Your task to perform on an android device: Open the calendar and show me this week's events? Image 0: 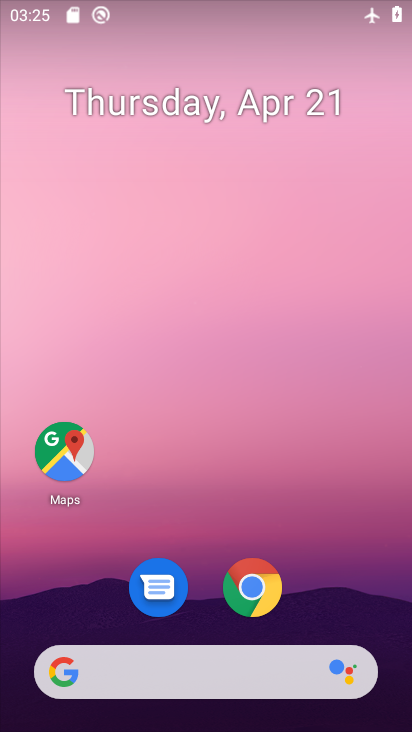
Step 0: drag from (346, 603) to (359, 225)
Your task to perform on an android device: Open the calendar and show me this week's events? Image 1: 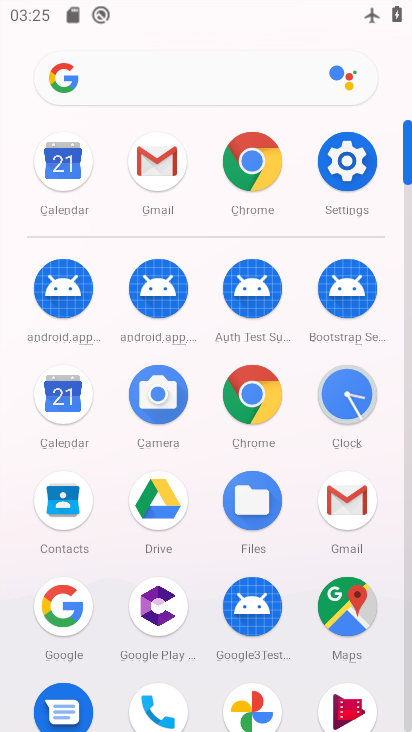
Step 1: click (51, 411)
Your task to perform on an android device: Open the calendar and show me this week's events? Image 2: 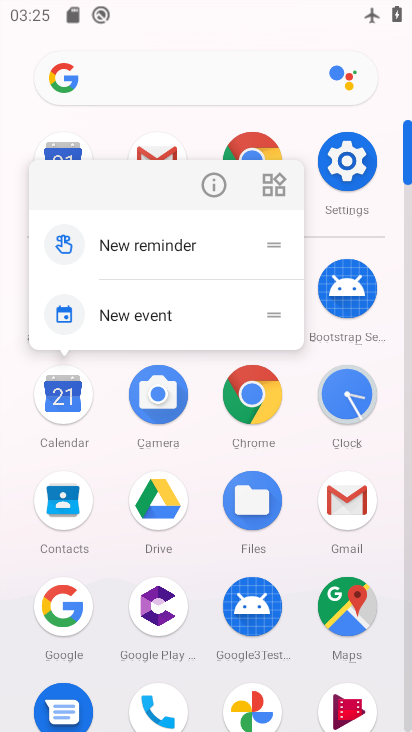
Step 2: click (55, 413)
Your task to perform on an android device: Open the calendar and show me this week's events? Image 3: 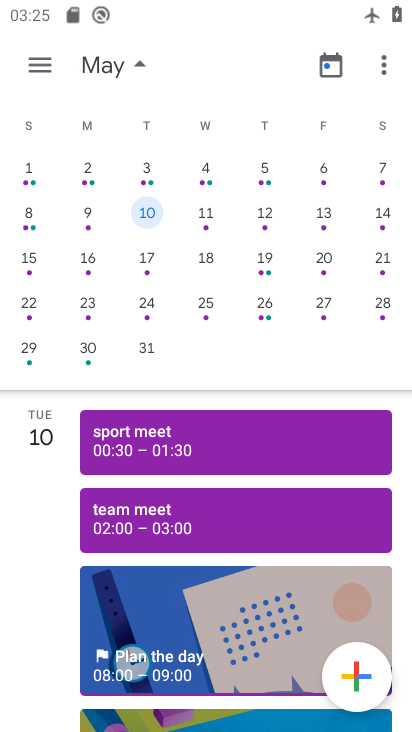
Step 3: click (20, 236)
Your task to perform on an android device: Open the calendar and show me this week's events? Image 4: 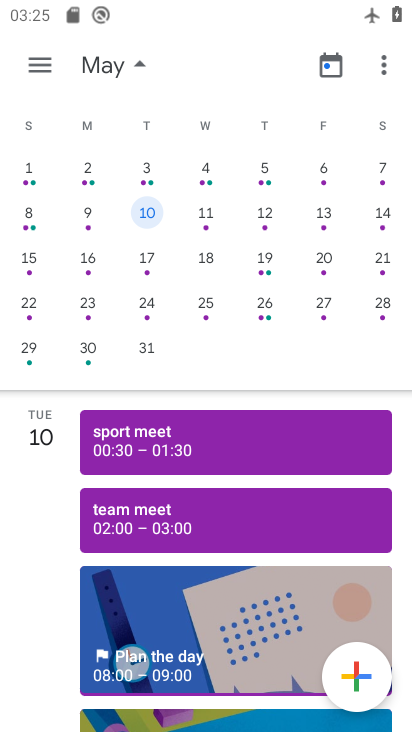
Step 4: drag from (236, 230) to (410, 271)
Your task to perform on an android device: Open the calendar and show me this week's events? Image 5: 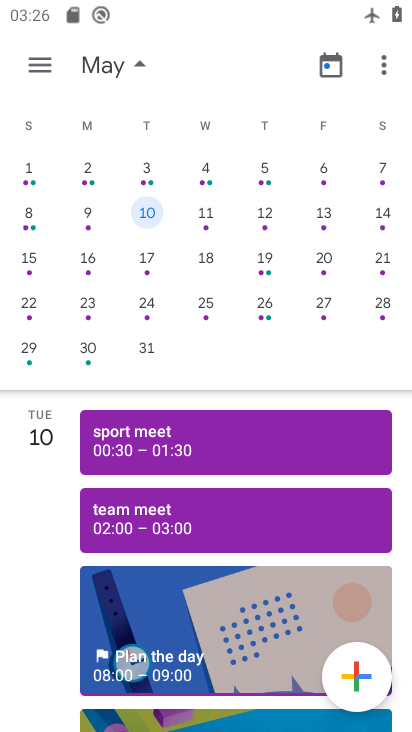
Step 5: drag from (130, 241) to (366, 242)
Your task to perform on an android device: Open the calendar and show me this week's events? Image 6: 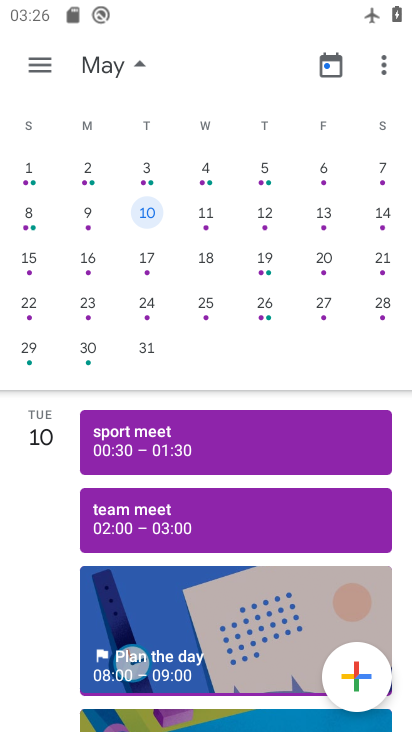
Step 6: drag from (59, 142) to (391, 177)
Your task to perform on an android device: Open the calendar and show me this week's events? Image 7: 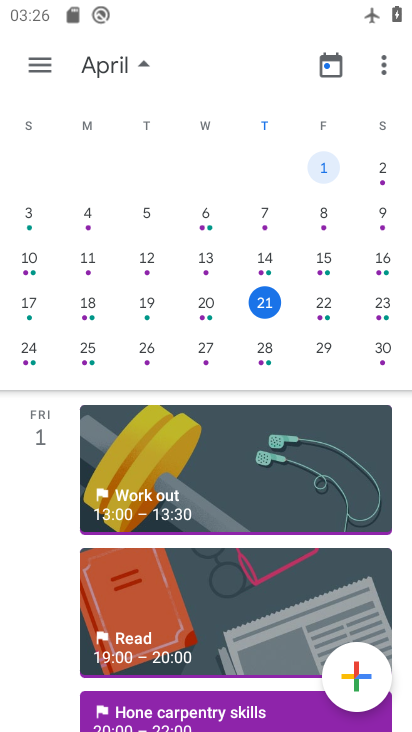
Step 7: drag from (260, 523) to (273, 203)
Your task to perform on an android device: Open the calendar and show me this week's events? Image 8: 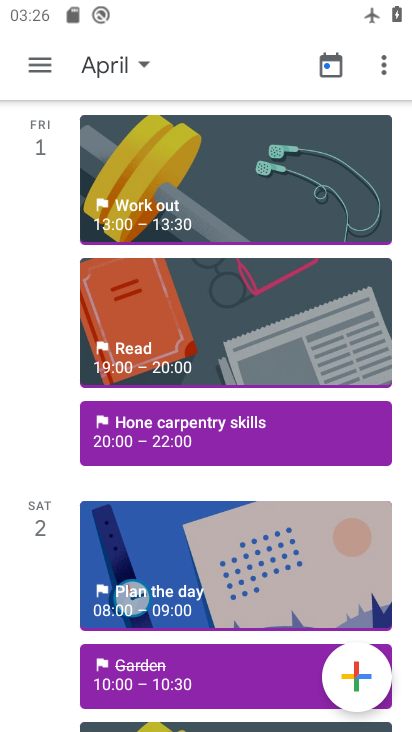
Step 8: drag from (260, 208) to (247, 428)
Your task to perform on an android device: Open the calendar and show me this week's events? Image 9: 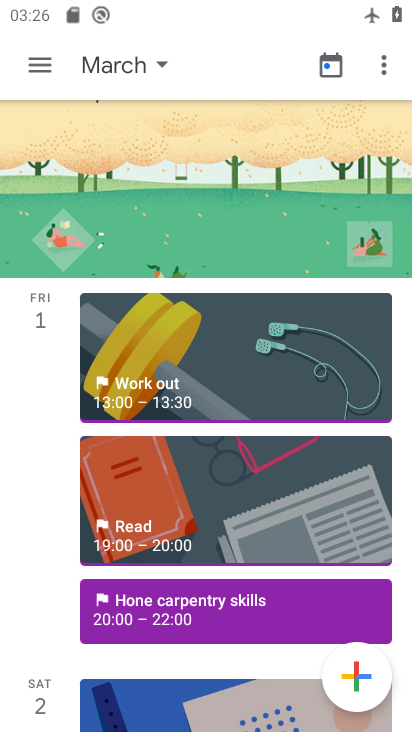
Step 9: click (162, 63)
Your task to perform on an android device: Open the calendar and show me this week's events? Image 10: 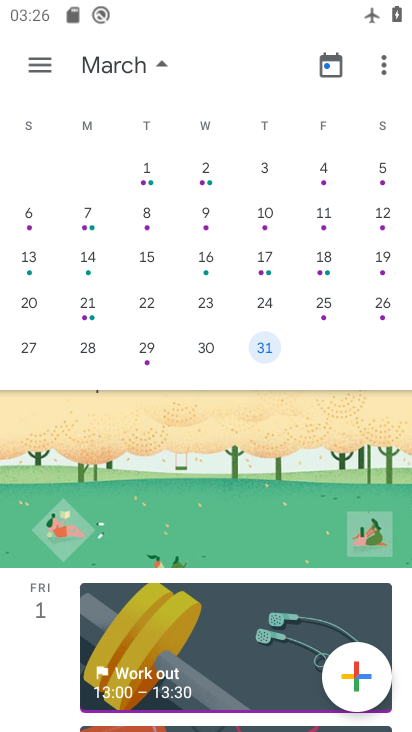
Step 10: drag from (349, 231) to (125, 231)
Your task to perform on an android device: Open the calendar and show me this week's events? Image 11: 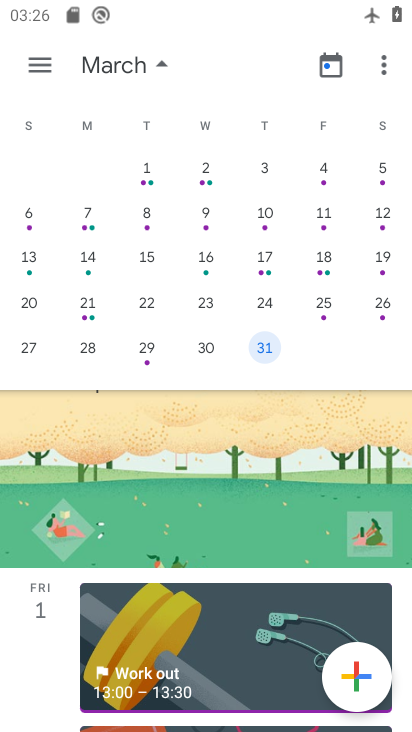
Step 11: drag from (360, 231) to (7, 235)
Your task to perform on an android device: Open the calendar and show me this week's events? Image 12: 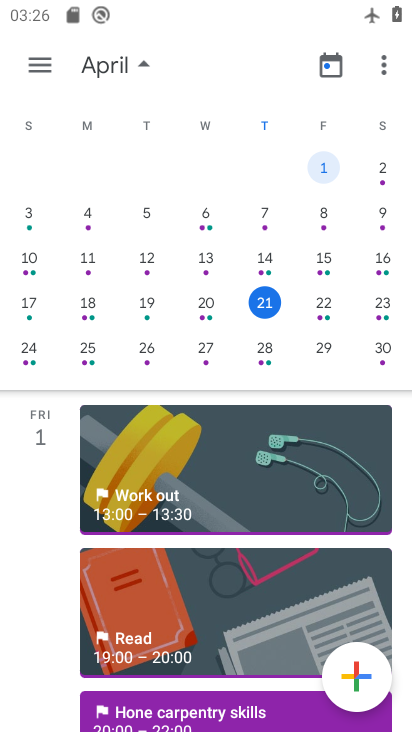
Step 12: click (322, 308)
Your task to perform on an android device: Open the calendar and show me this week's events? Image 13: 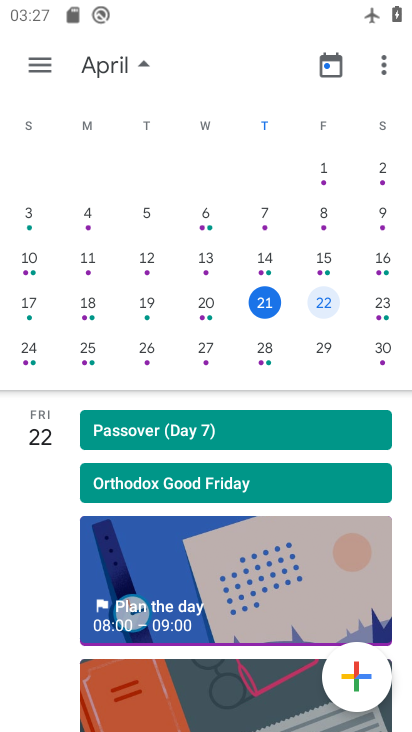
Step 13: task complete